Your task to perform on an android device: Go to wifi settings Image 0: 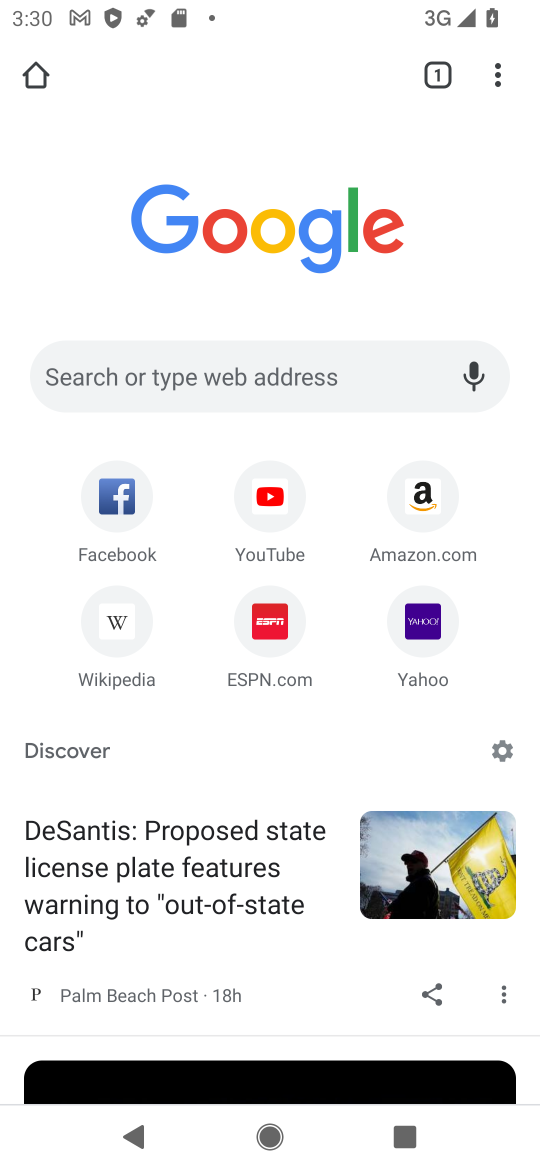
Step 0: press home button
Your task to perform on an android device: Go to wifi settings Image 1: 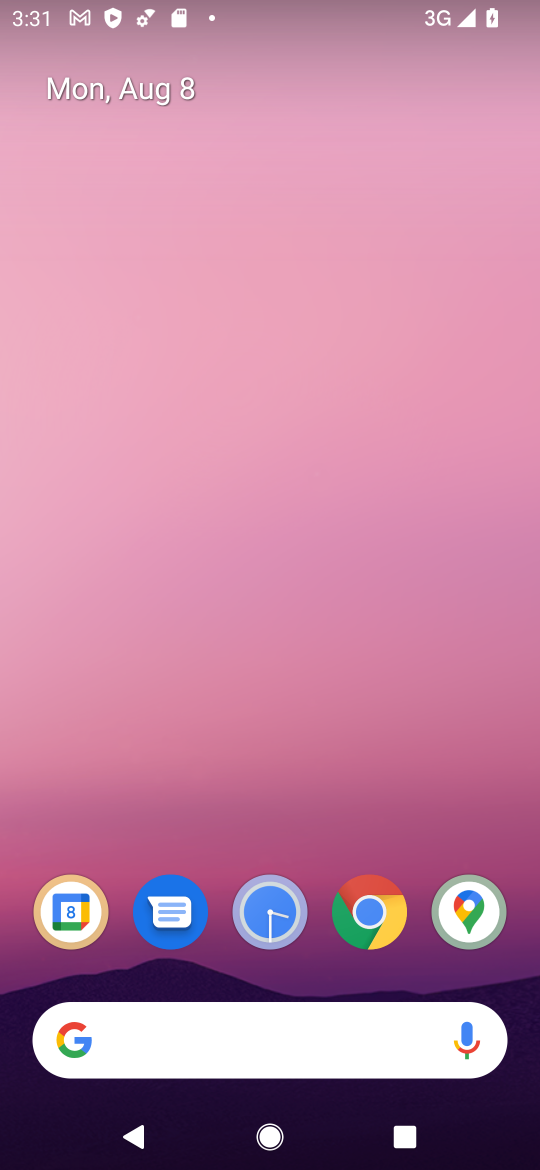
Step 1: drag from (53, 1126) to (401, 159)
Your task to perform on an android device: Go to wifi settings Image 2: 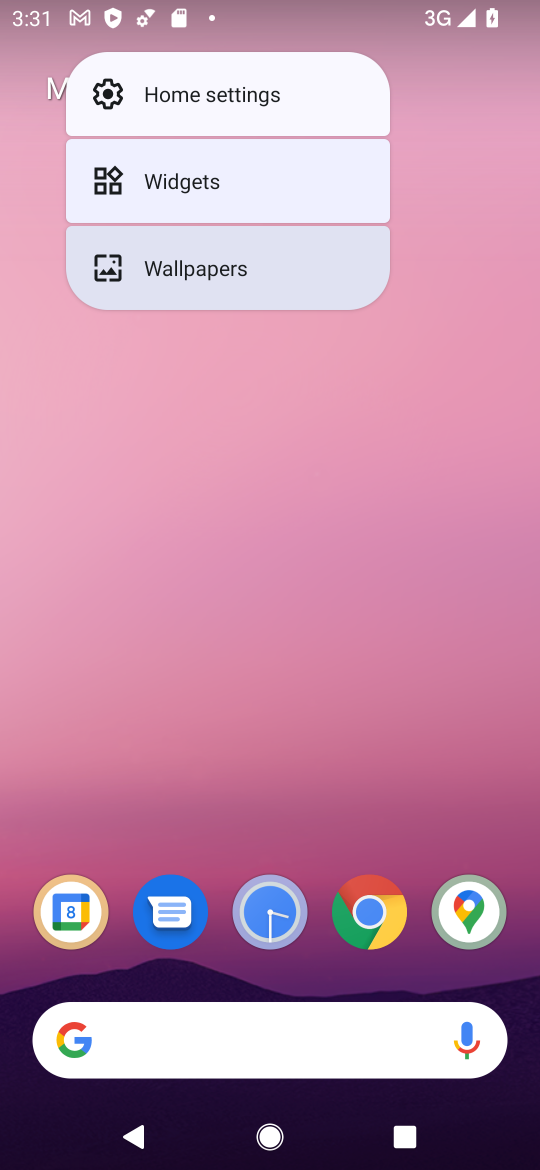
Step 2: click (367, 751)
Your task to perform on an android device: Go to wifi settings Image 3: 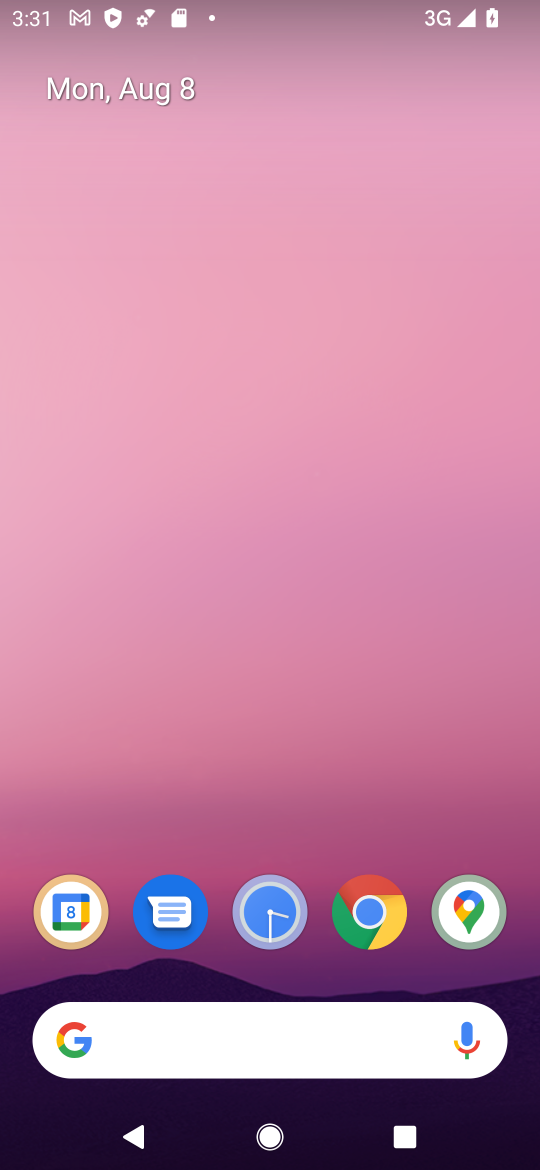
Step 3: drag from (67, 859) to (240, 412)
Your task to perform on an android device: Go to wifi settings Image 4: 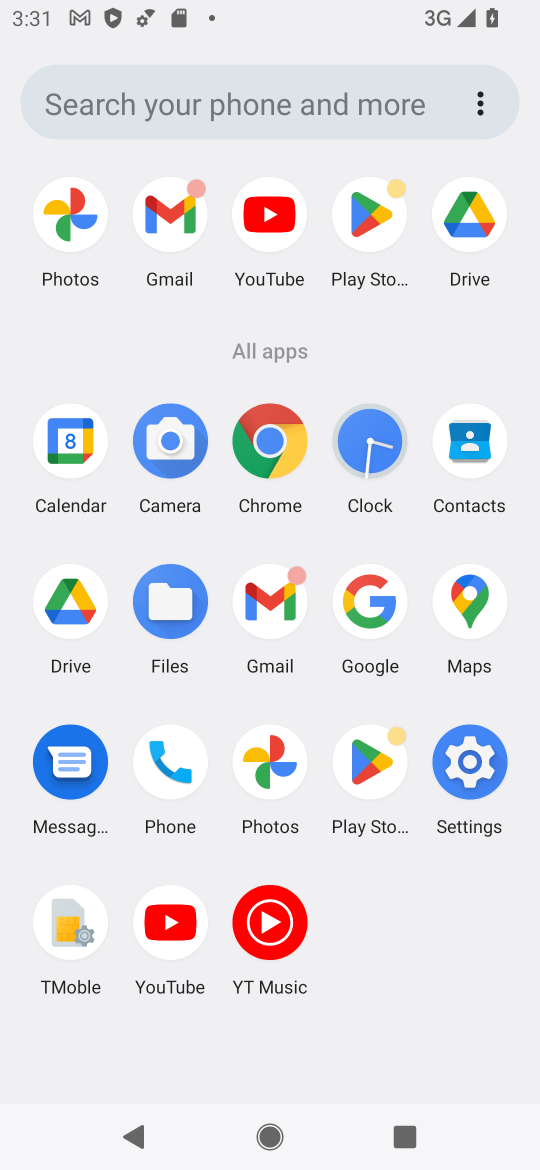
Step 4: click (507, 775)
Your task to perform on an android device: Go to wifi settings Image 5: 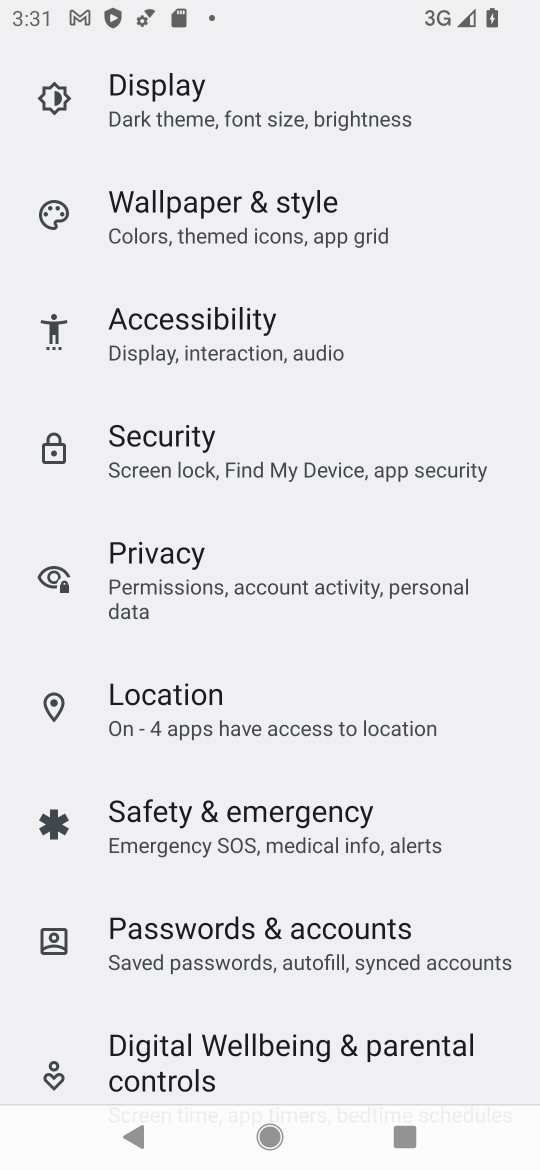
Step 5: drag from (218, 199) to (259, 993)
Your task to perform on an android device: Go to wifi settings Image 6: 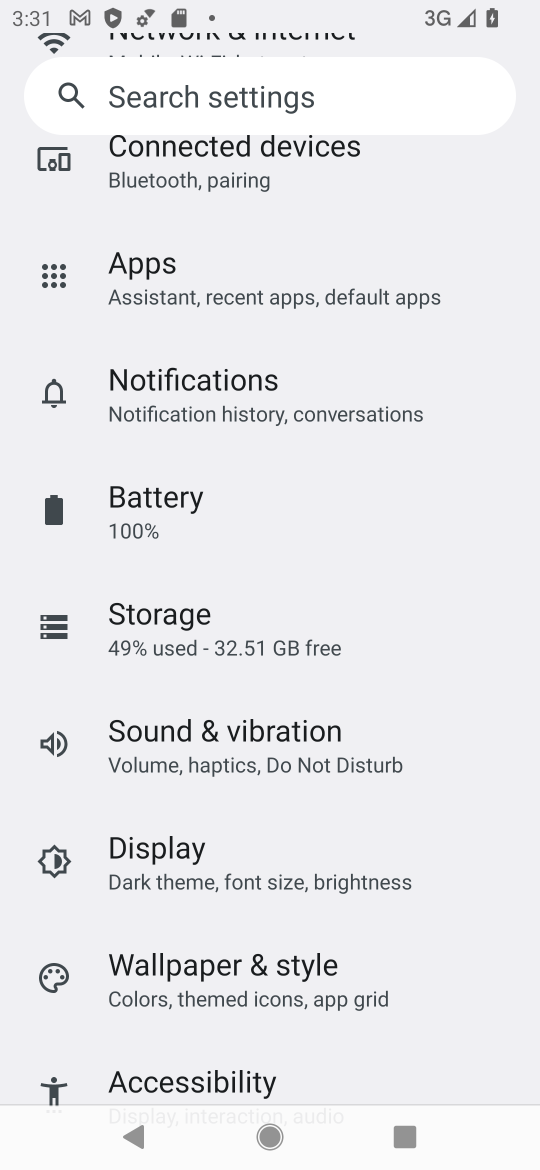
Step 6: drag from (214, 276) to (206, 1086)
Your task to perform on an android device: Go to wifi settings Image 7: 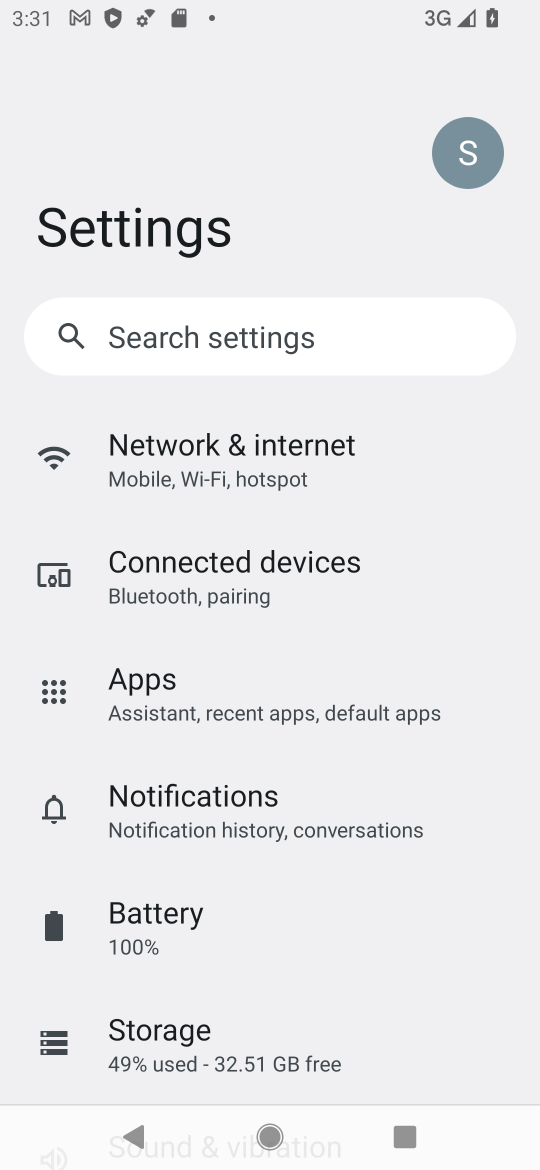
Step 7: click (178, 482)
Your task to perform on an android device: Go to wifi settings Image 8: 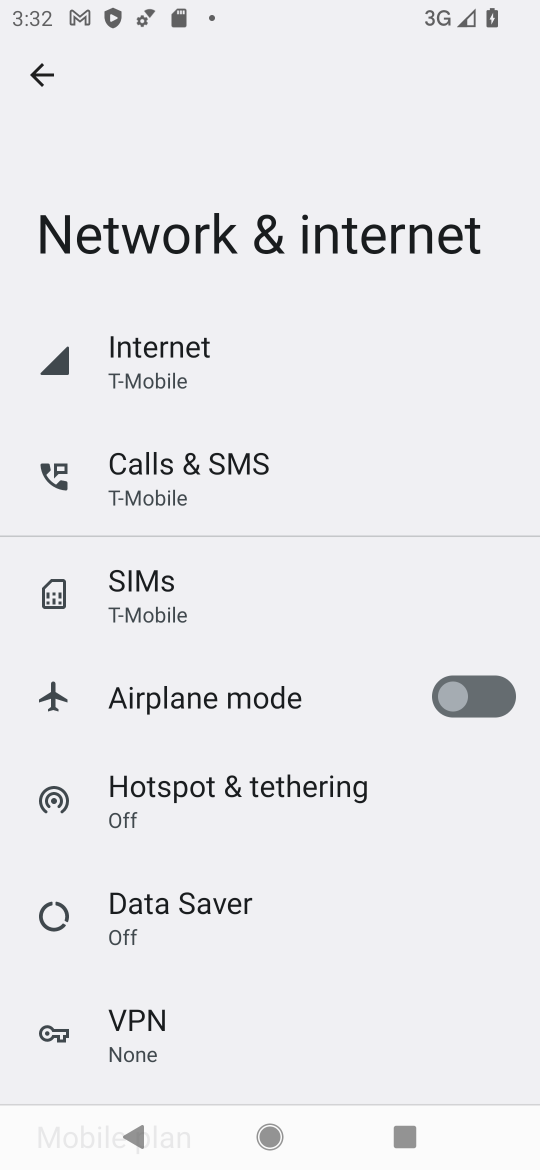
Step 8: drag from (83, 722) to (301, 204)
Your task to perform on an android device: Go to wifi settings Image 9: 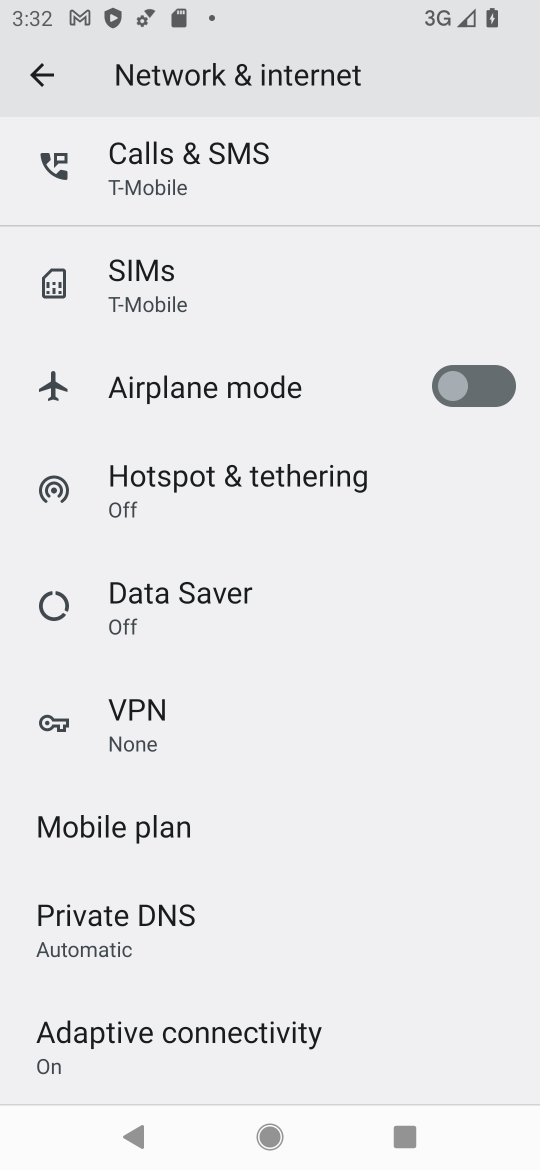
Step 9: drag from (277, 345) to (241, 1159)
Your task to perform on an android device: Go to wifi settings Image 10: 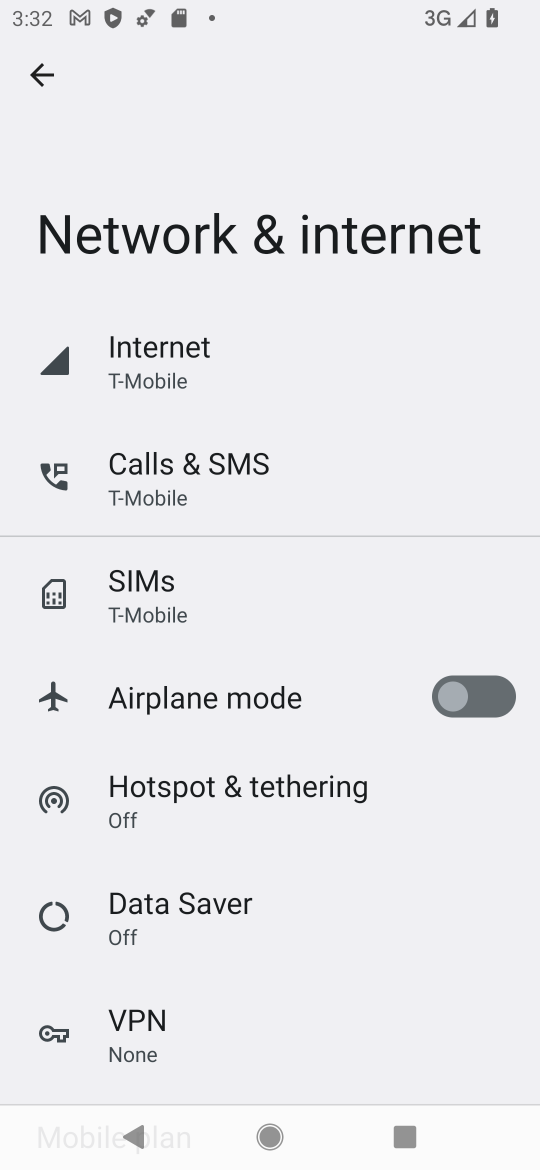
Step 10: click (188, 372)
Your task to perform on an android device: Go to wifi settings Image 11: 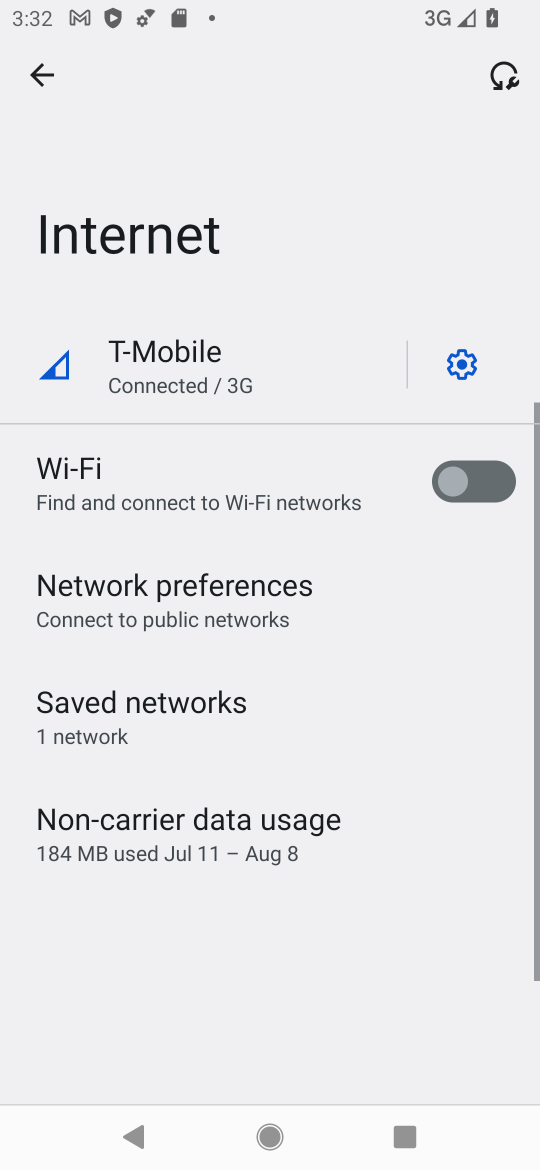
Step 11: click (161, 508)
Your task to perform on an android device: Go to wifi settings Image 12: 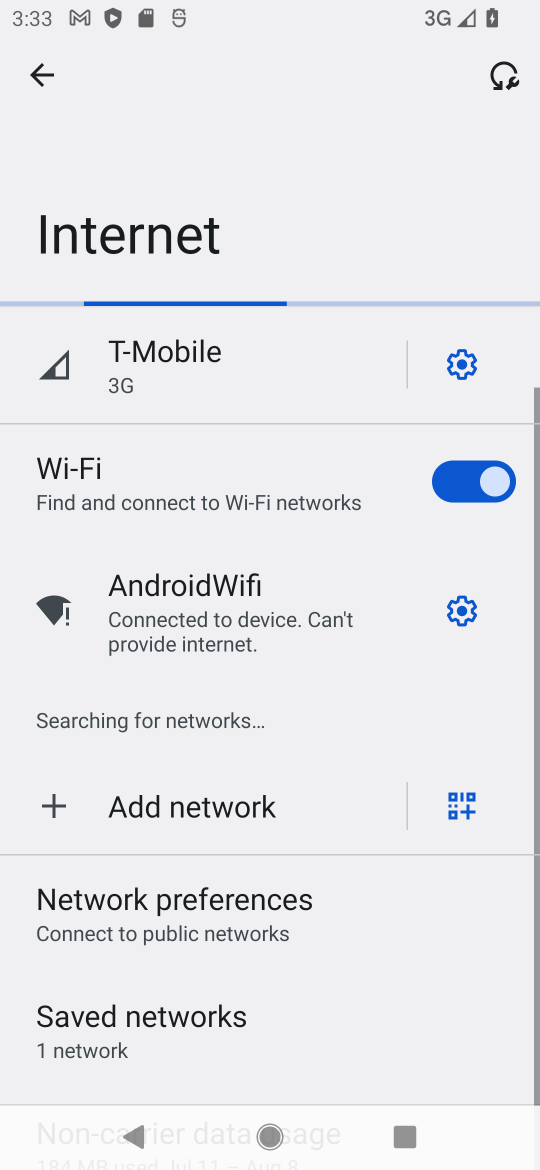
Step 12: task complete